Your task to perform on an android device: Do I have any events this weekend? Image 0: 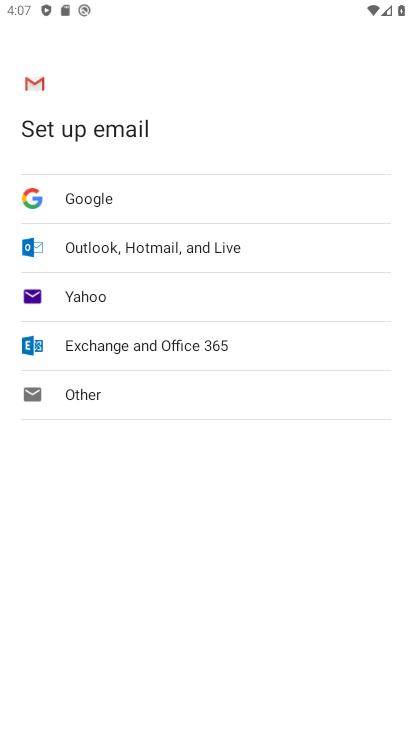
Step 0: press home button
Your task to perform on an android device: Do I have any events this weekend? Image 1: 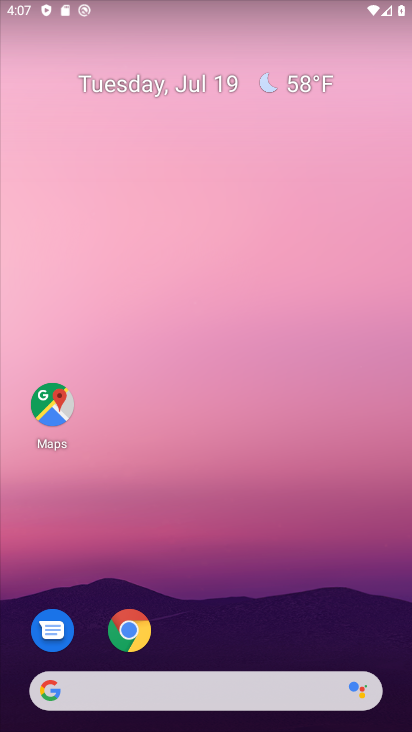
Step 1: drag from (36, 711) to (293, 309)
Your task to perform on an android device: Do I have any events this weekend? Image 2: 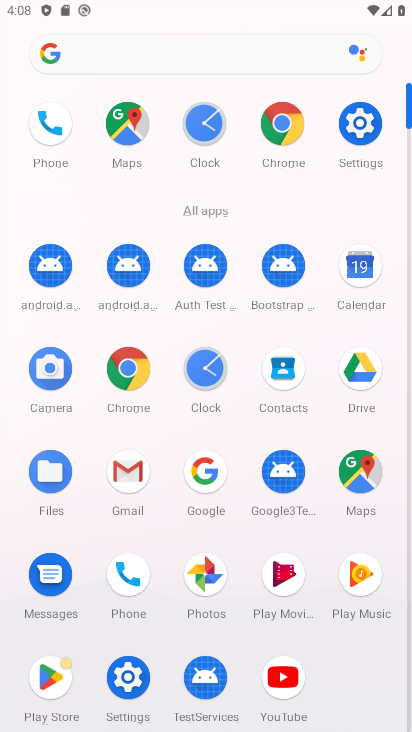
Step 2: click (350, 273)
Your task to perform on an android device: Do I have any events this weekend? Image 3: 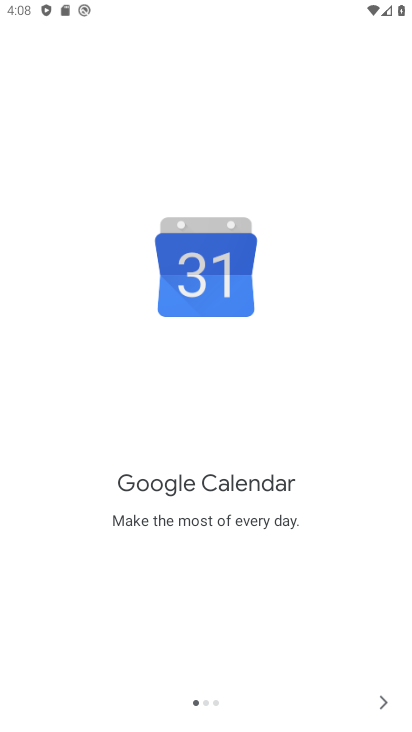
Step 3: click (379, 701)
Your task to perform on an android device: Do I have any events this weekend? Image 4: 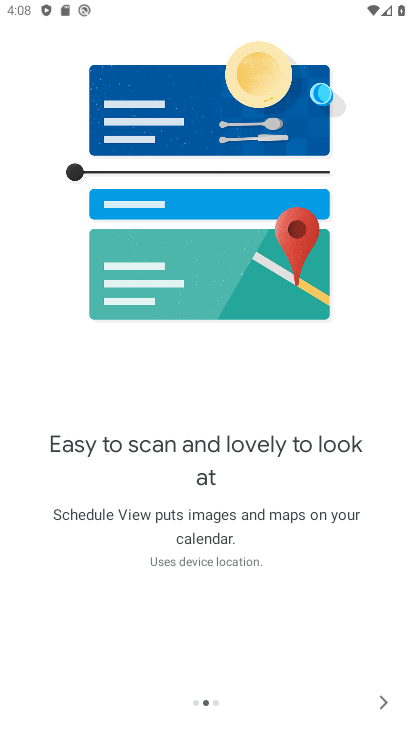
Step 4: click (384, 704)
Your task to perform on an android device: Do I have any events this weekend? Image 5: 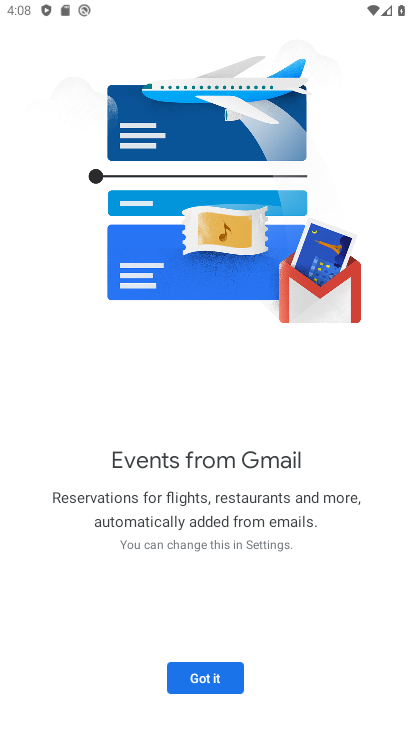
Step 5: click (203, 669)
Your task to perform on an android device: Do I have any events this weekend? Image 6: 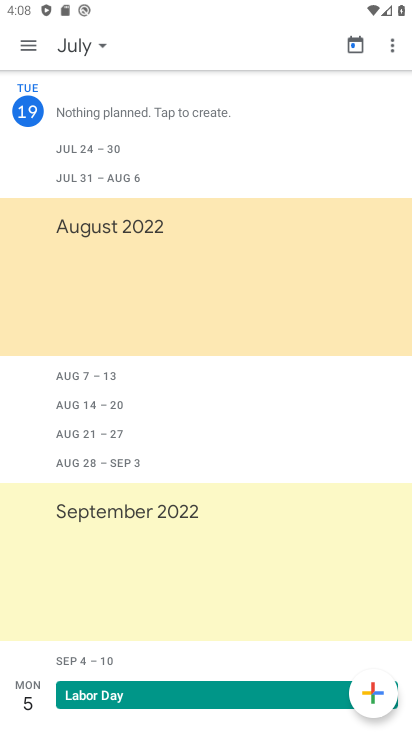
Step 6: click (102, 55)
Your task to perform on an android device: Do I have any events this weekend? Image 7: 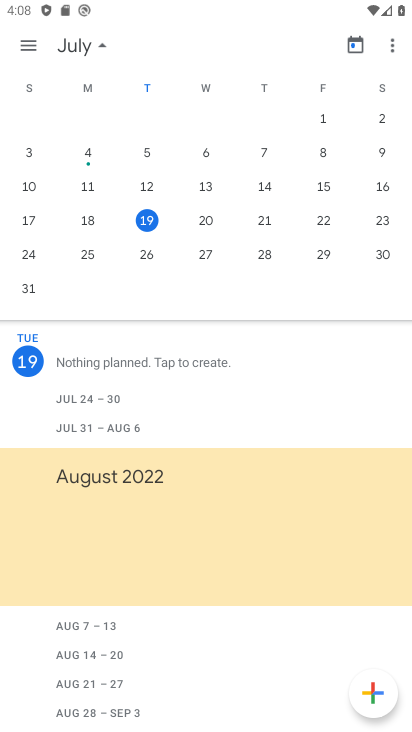
Step 7: task complete